Your task to perform on an android device: Open wifi settings Image 0: 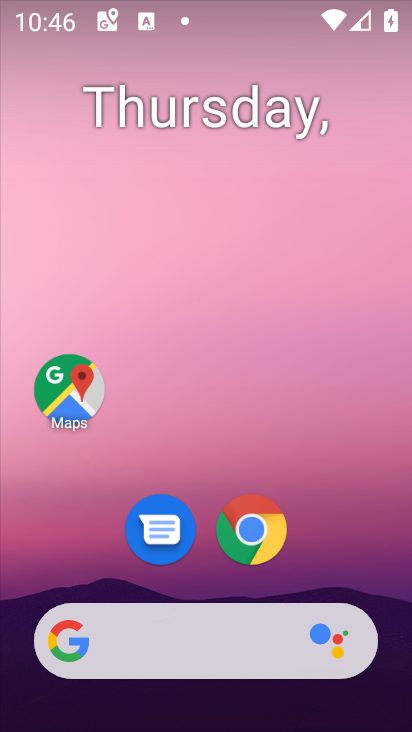
Step 0: drag from (232, 640) to (157, 85)
Your task to perform on an android device: Open wifi settings Image 1: 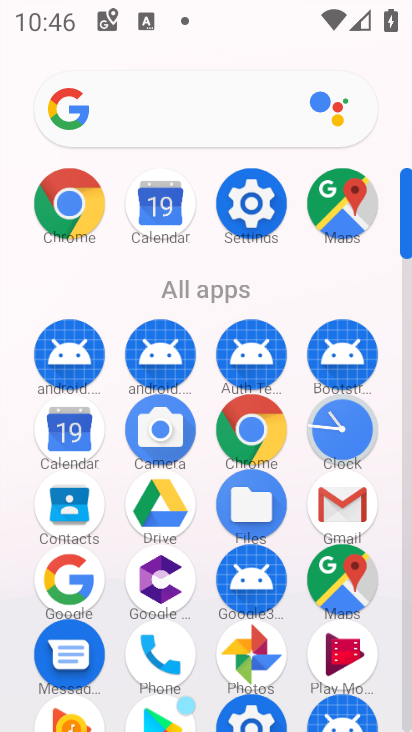
Step 1: click (246, 216)
Your task to perform on an android device: Open wifi settings Image 2: 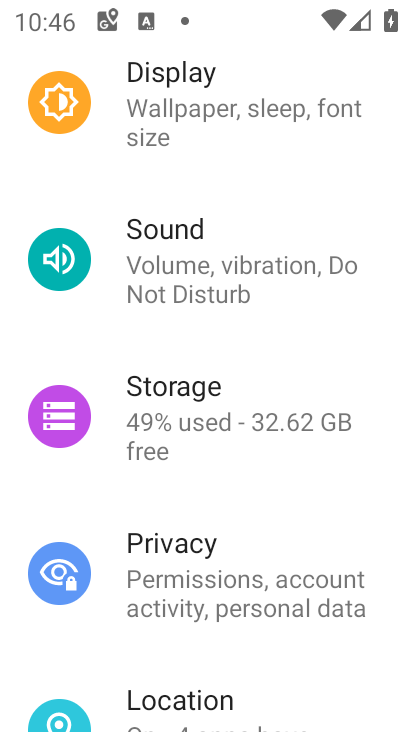
Step 2: drag from (220, 173) to (300, 697)
Your task to perform on an android device: Open wifi settings Image 3: 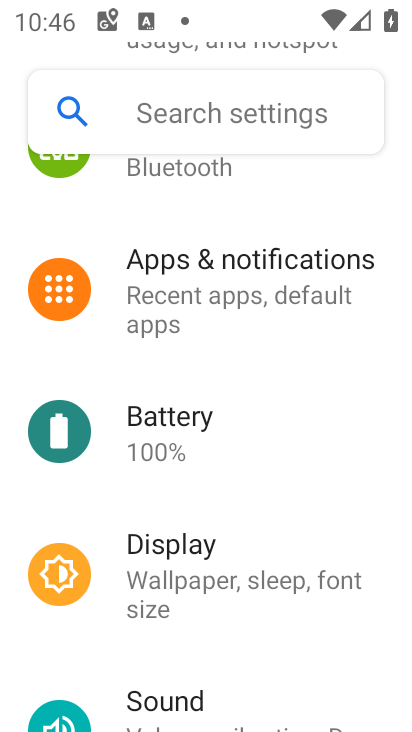
Step 3: drag from (195, 336) to (223, 725)
Your task to perform on an android device: Open wifi settings Image 4: 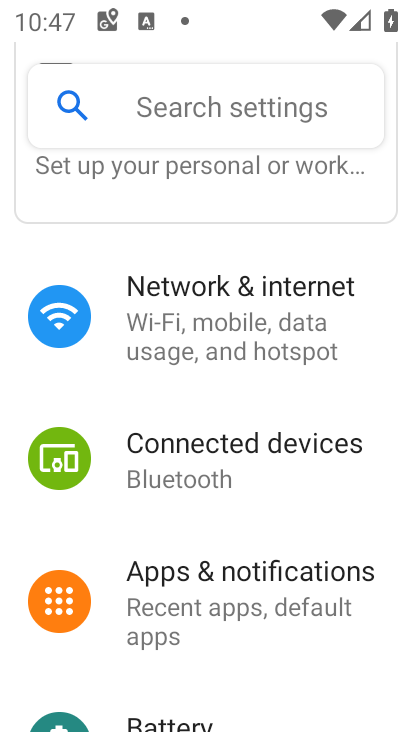
Step 4: click (192, 347)
Your task to perform on an android device: Open wifi settings Image 5: 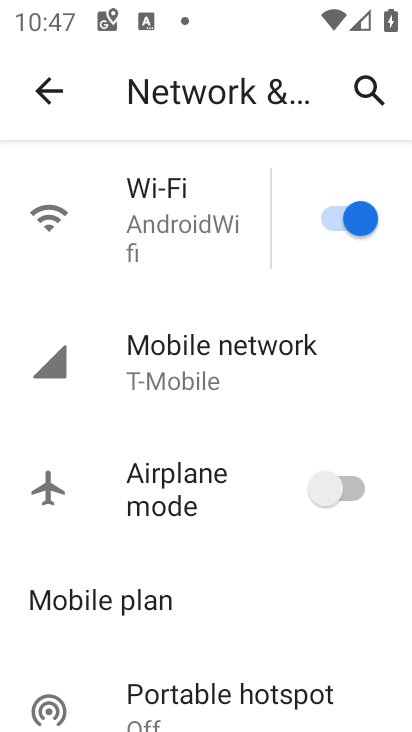
Step 5: click (198, 202)
Your task to perform on an android device: Open wifi settings Image 6: 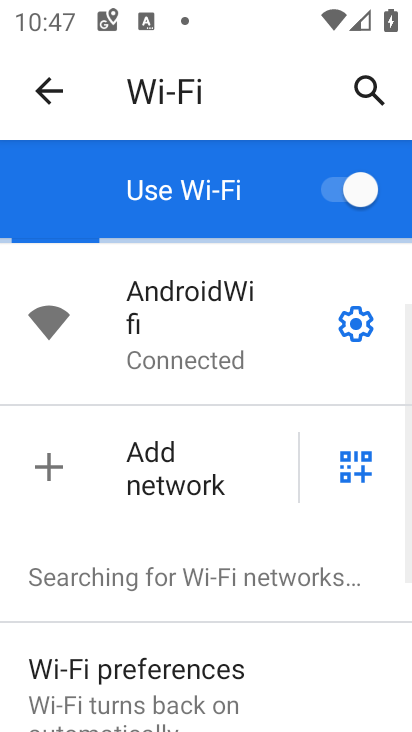
Step 6: task complete